Your task to perform on an android device: Open Yahoo.com Image 0: 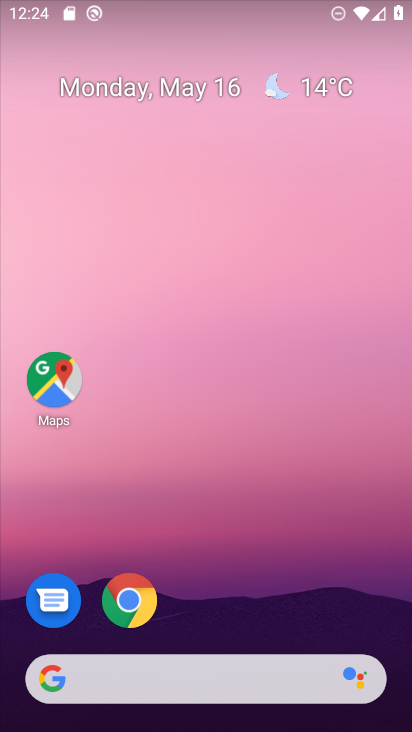
Step 0: click (327, 82)
Your task to perform on an android device: Open Yahoo.com Image 1: 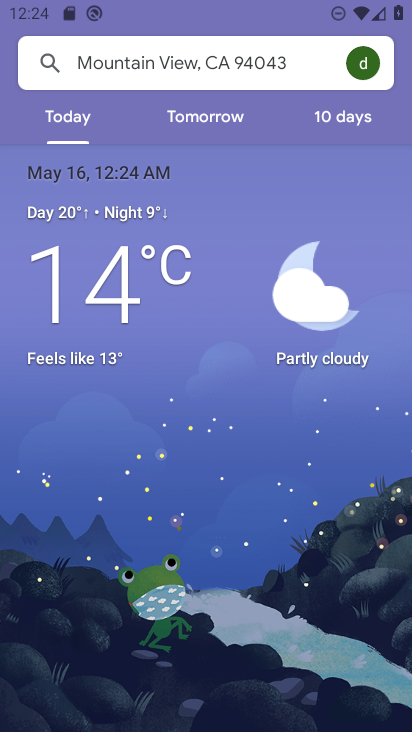
Step 1: press home button
Your task to perform on an android device: Open Yahoo.com Image 2: 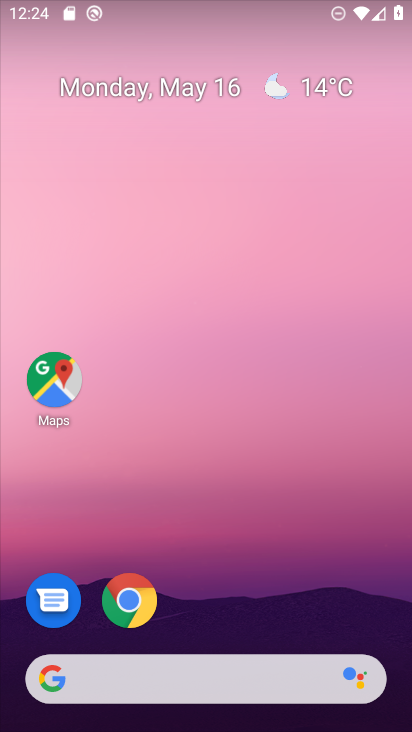
Step 2: drag from (222, 634) to (244, 18)
Your task to perform on an android device: Open Yahoo.com Image 3: 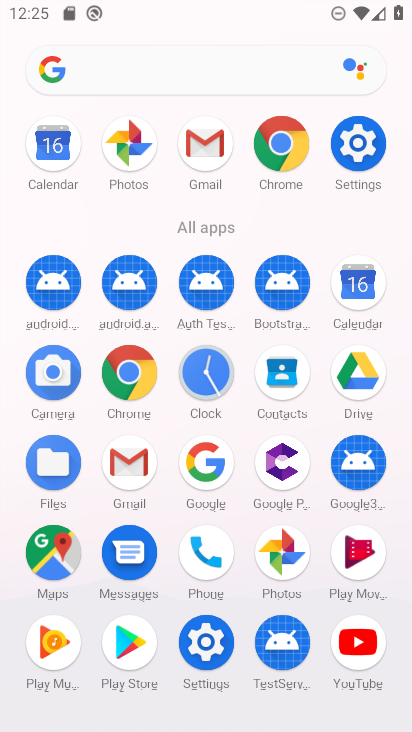
Step 3: click (278, 135)
Your task to perform on an android device: Open Yahoo.com Image 4: 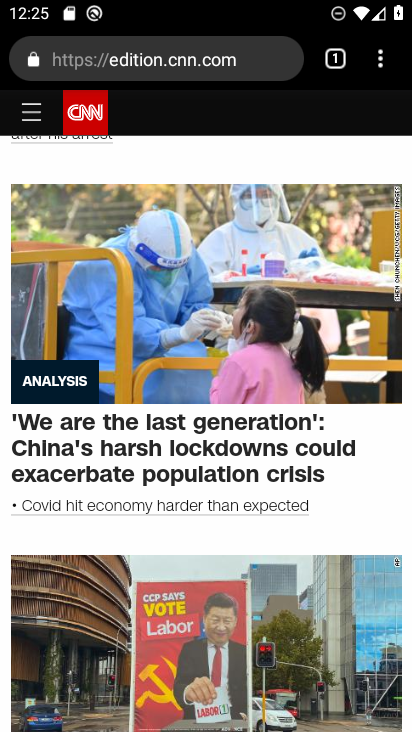
Step 4: click (339, 51)
Your task to perform on an android device: Open Yahoo.com Image 5: 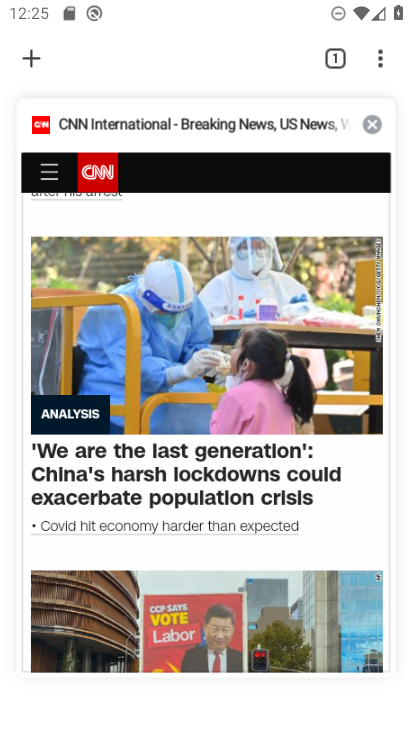
Step 5: click (375, 116)
Your task to perform on an android device: Open Yahoo.com Image 6: 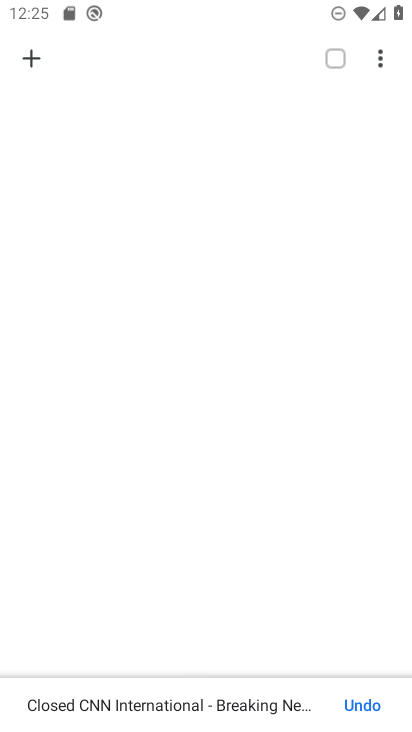
Step 6: click (38, 58)
Your task to perform on an android device: Open Yahoo.com Image 7: 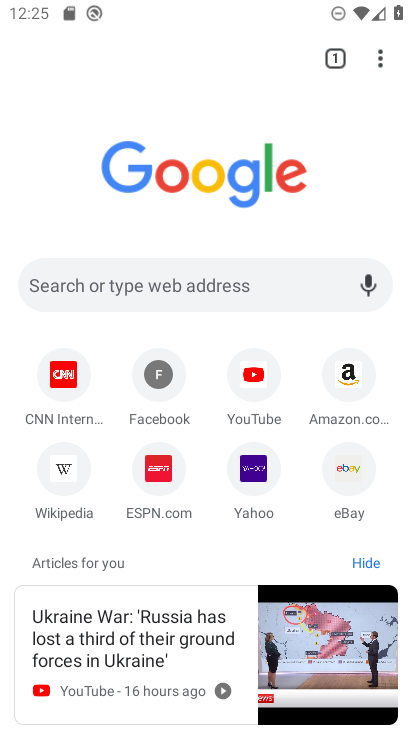
Step 7: click (255, 461)
Your task to perform on an android device: Open Yahoo.com Image 8: 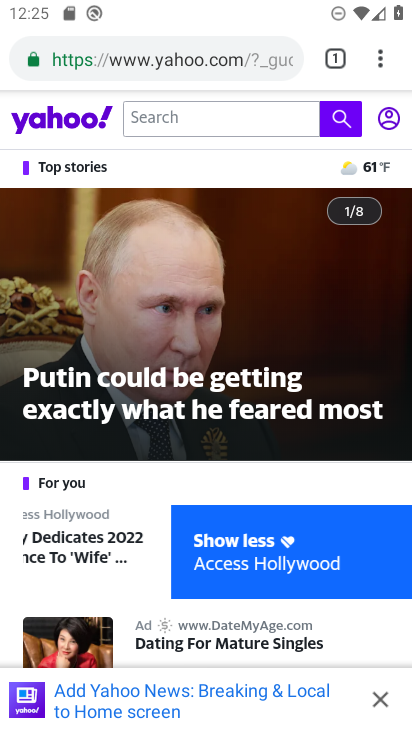
Step 8: task complete